Your task to perform on an android device: allow cookies in the chrome app Image 0: 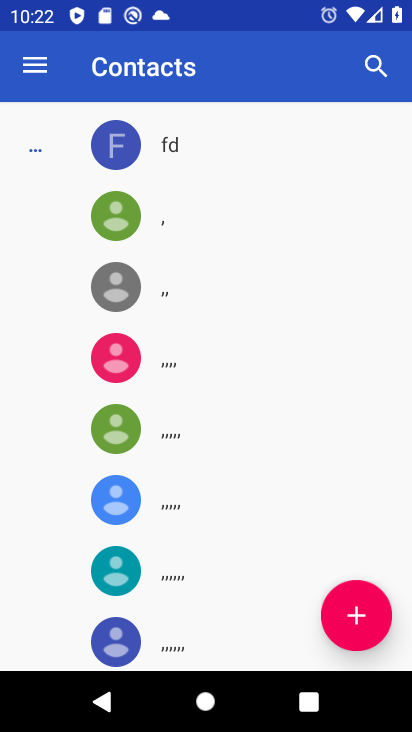
Step 0: press home button
Your task to perform on an android device: allow cookies in the chrome app Image 1: 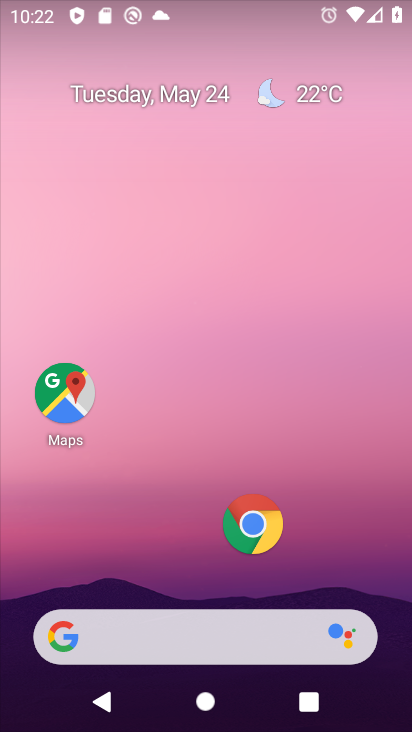
Step 1: click (243, 536)
Your task to perform on an android device: allow cookies in the chrome app Image 2: 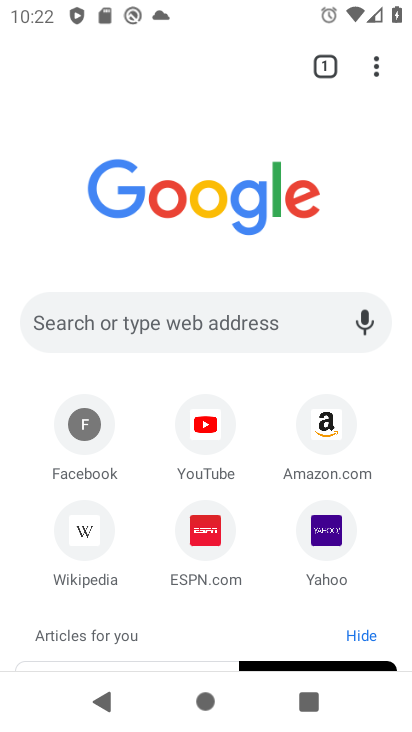
Step 2: click (376, 65)
Your task to perform on an android device: allow cookies in the chrome app Image 3: 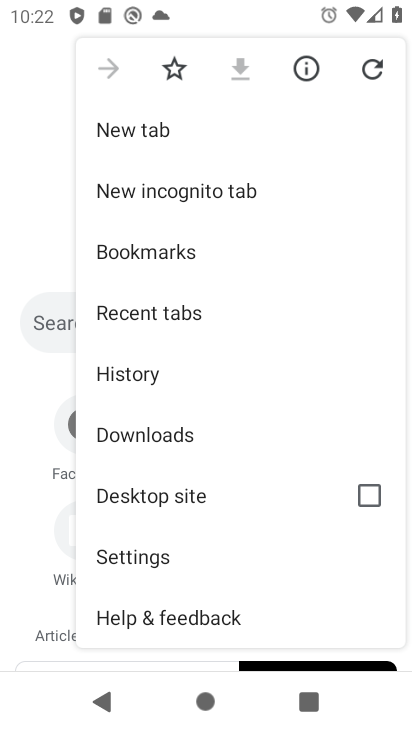
Step 3: click (230, 554)
Your task to perform on an android device: allow cookies in the chrome app Image 4: 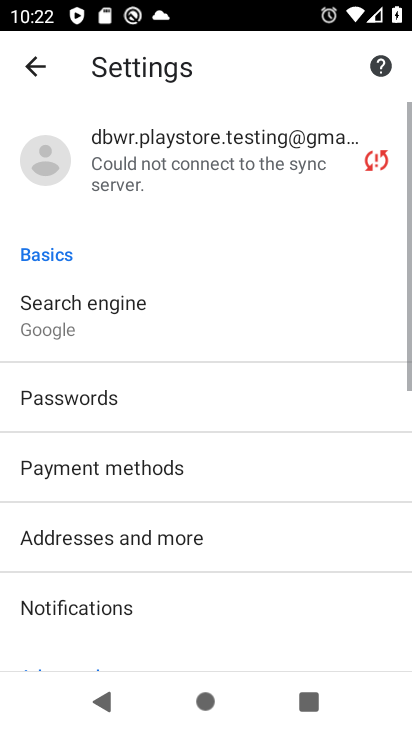
Step 4: drag from (267, 448) to (309, 103)
Your task to perform on an android device: allow cookies in the chrome app Image 5: 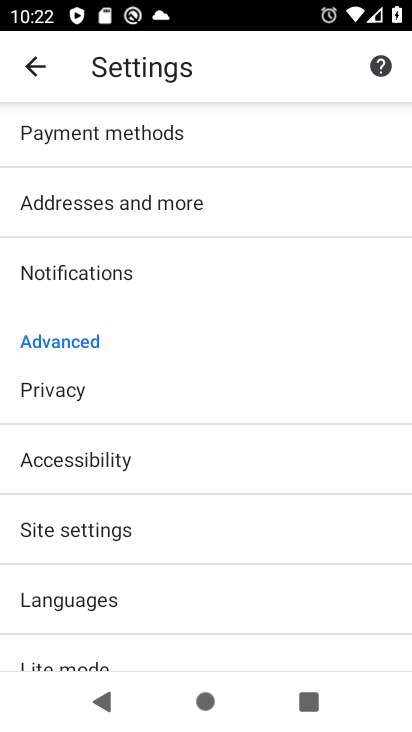
Step 5: click (208, 533)
Your task to perform on an android device: allow cookies in the chrome app Image 6: 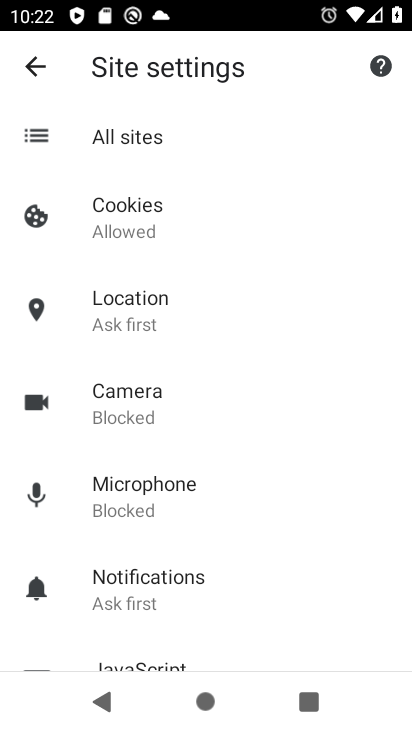
Step 6: task complete